Your task to perform on an android device: open app "Instagram" (install if not already installed) Image 0: 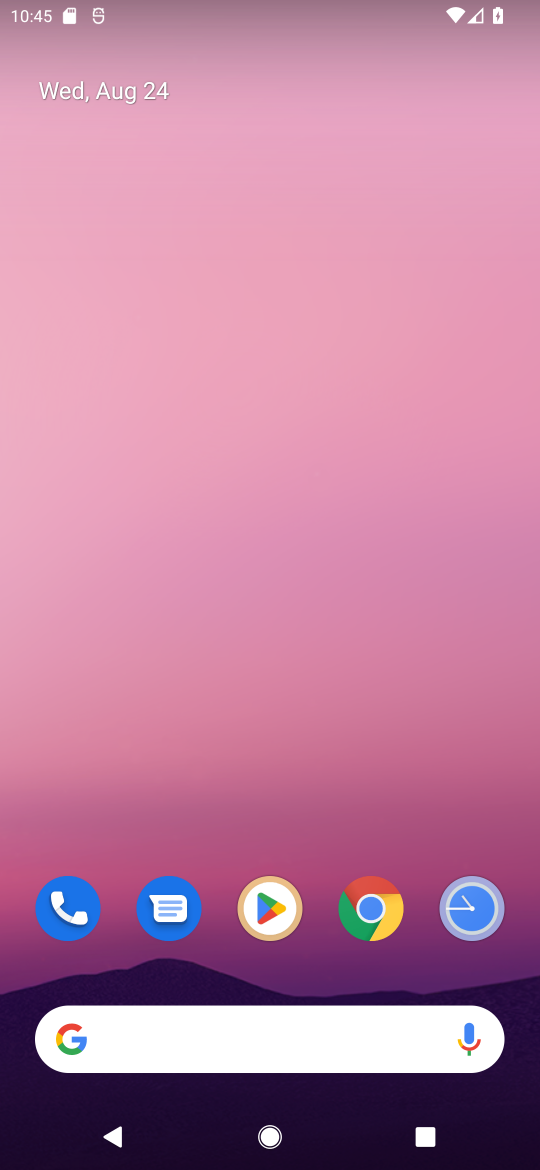
Step 0: click (255, 912)
Your task to perform on an android device: open app "Instagram" (install if not already installed) Image 1: 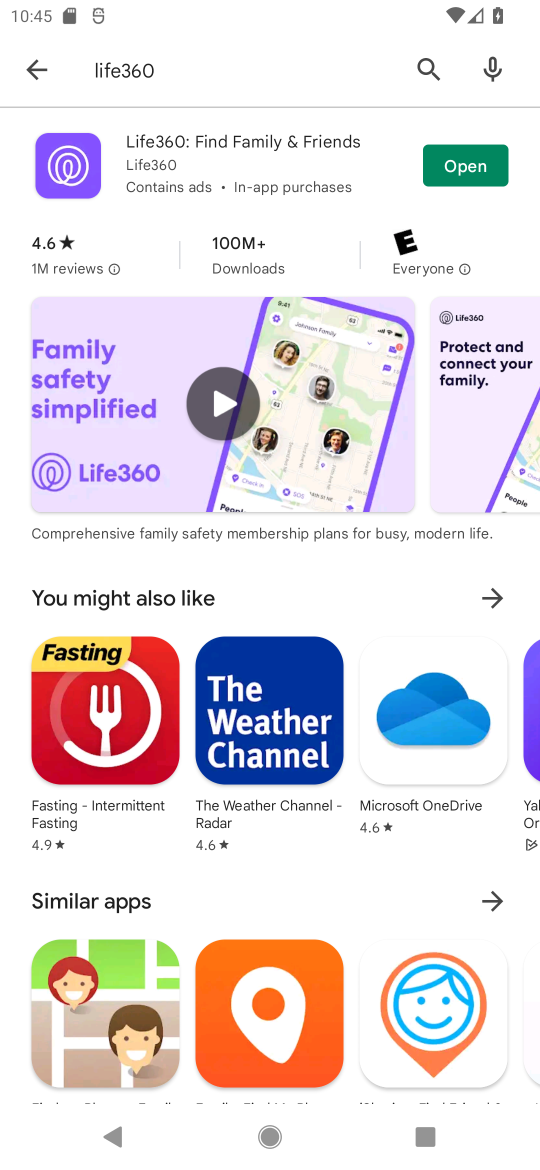
Step 1: click (47, 59)
Your task to perform on an android device: open app "Instagram" (install if not already installed) Image 2: 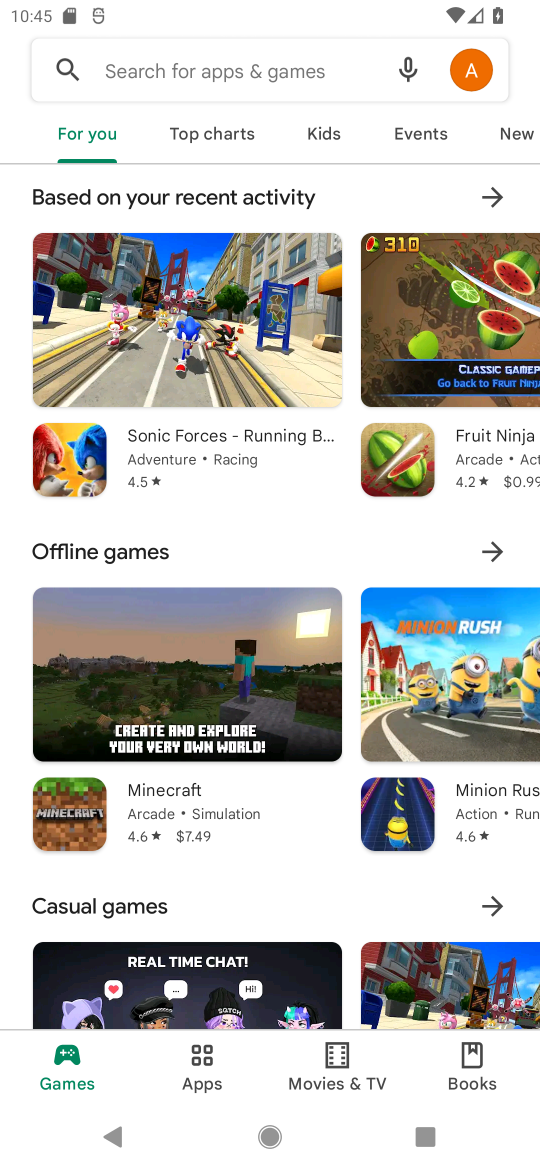
Step 2: click (237, 73)
Your task to perform on an android device: open app "Instagram" (install if not already installed) Image 3: 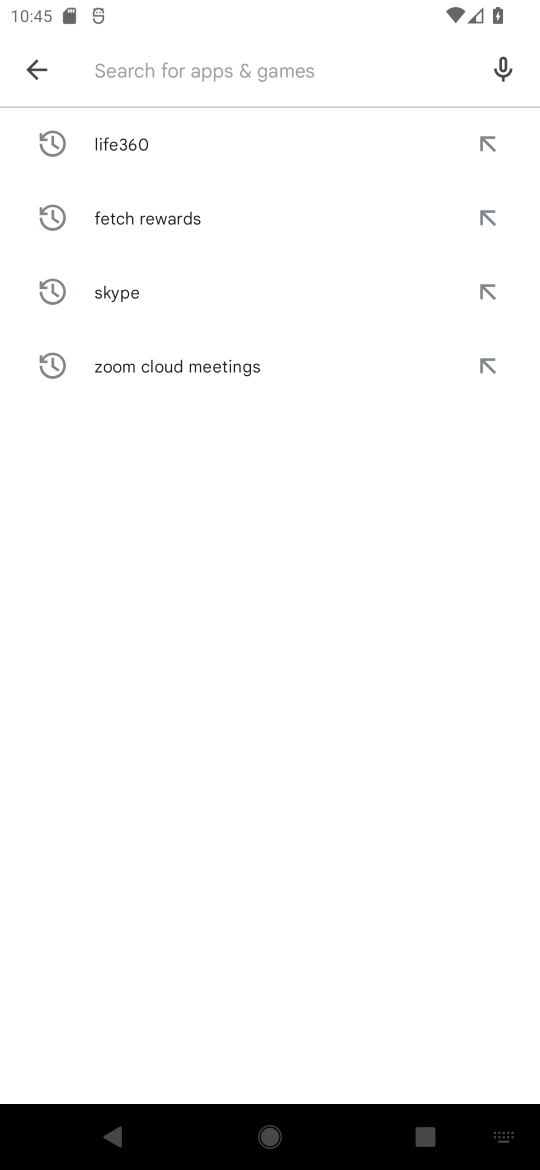
Step 3: type "Instagram"
Your task to perform on an android device: open app "Instagram" (install if not already installed) Image 4: 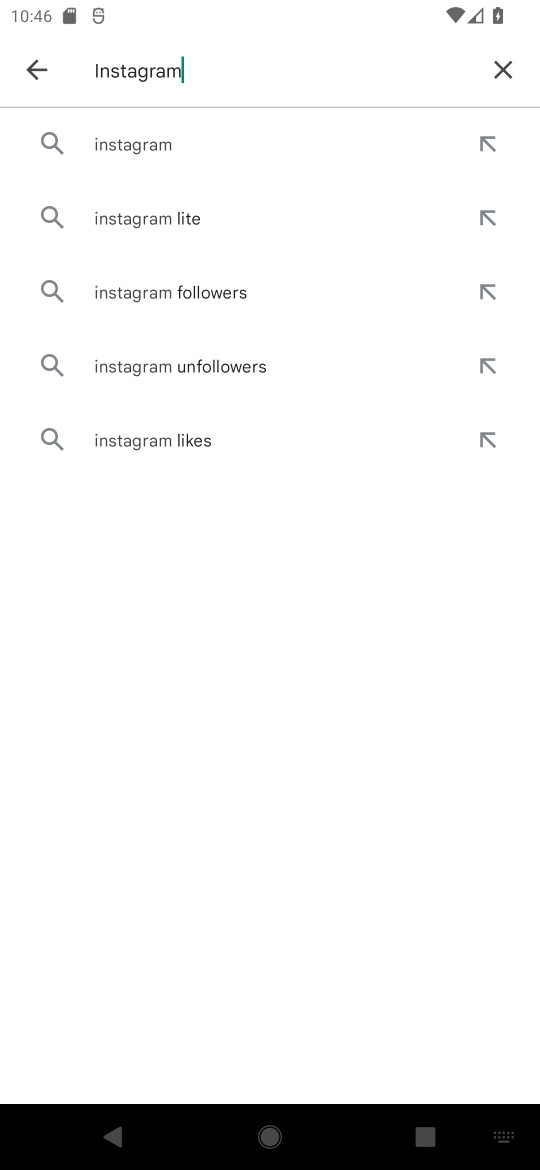
Step 4: click (82, 132)
Your task to perform on an android device: open app "Instagram" (install if not already installed) Image 5: 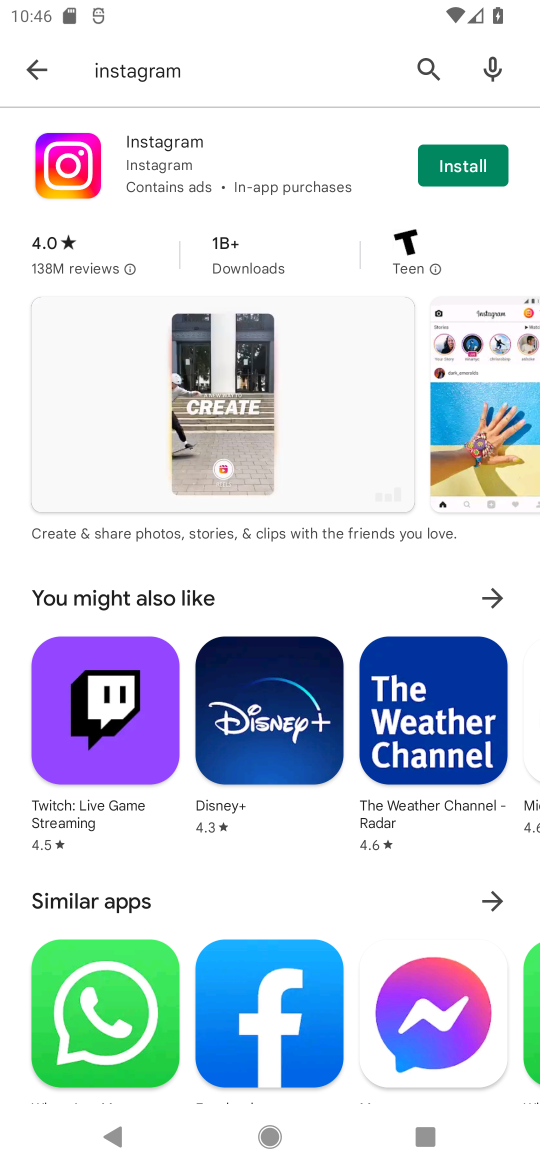
Step 5: click (448, 173)
Your task to perform on an android device: open app "Instagram" (install if not already installed) Image 6: 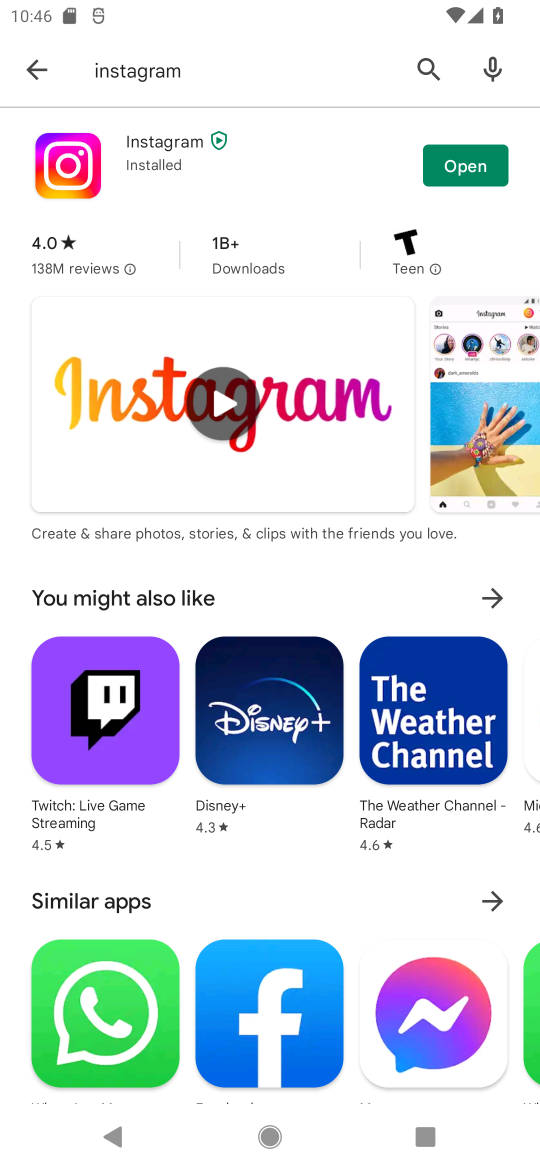
Step 6: click (448, 173)
Your task to perform on an android device: open app "Instagram" (install if not already installed) Image 7: 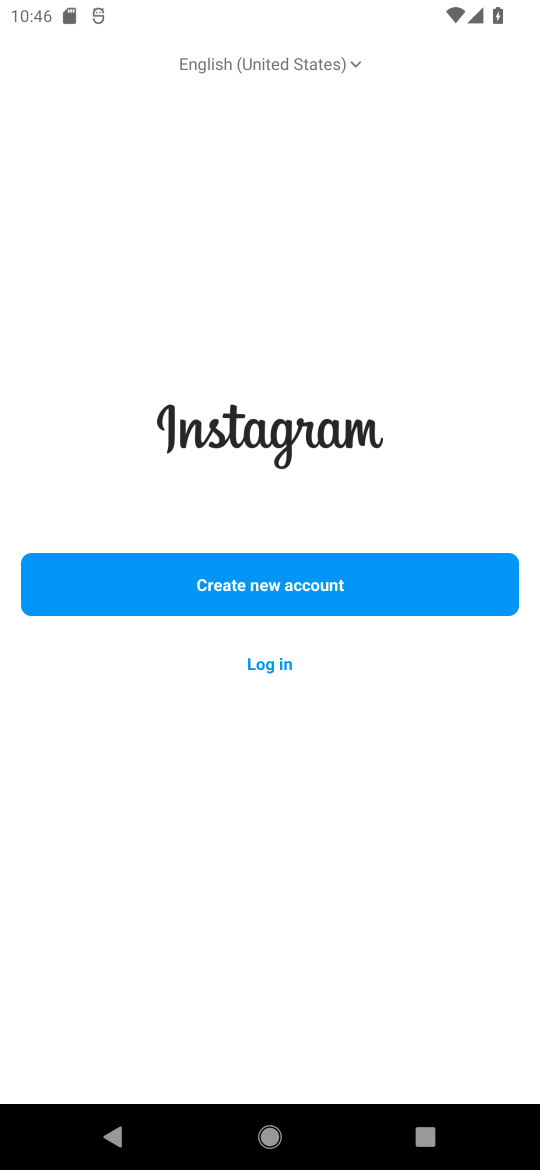
Step 7: task complete